Your task to perform on an android device: Go to settings Image 0: 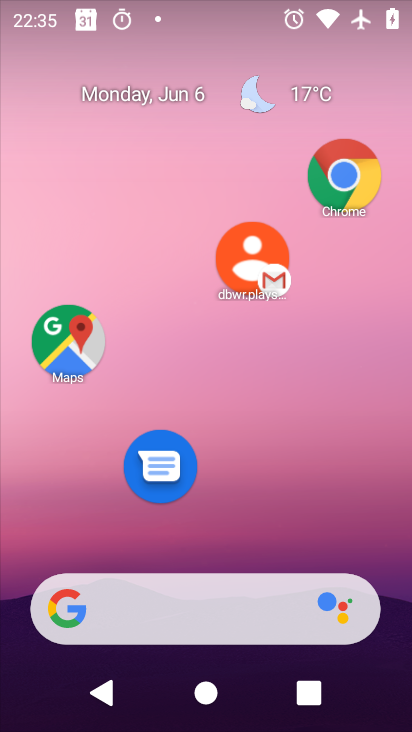
Step 0: drag from (207, 552) to (141, 61)
Your task to perform on an android device: Go to settings Image 1: 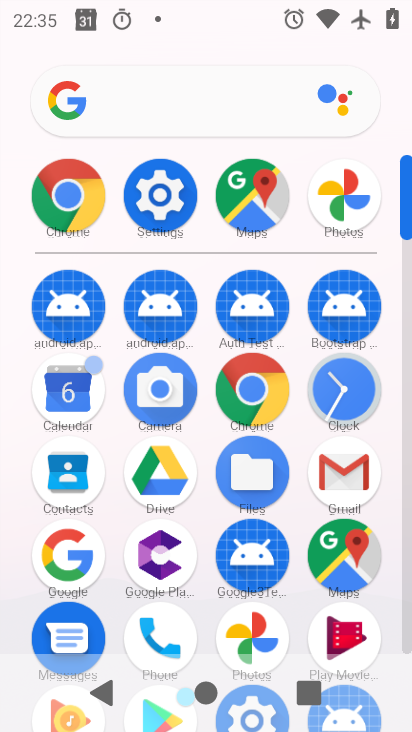
Step 1: click (149, 178)
Your task to perform on an android device: Go to settings Image 2: 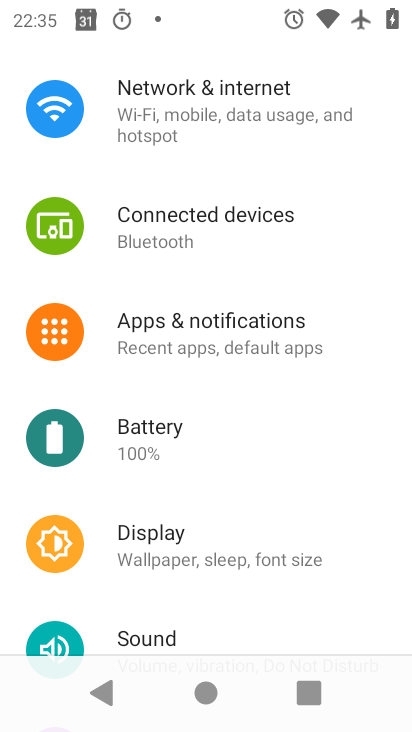
Step 2: task complete